Your task to perform on an android device: Open Chrome and go to the settings page Image 0: 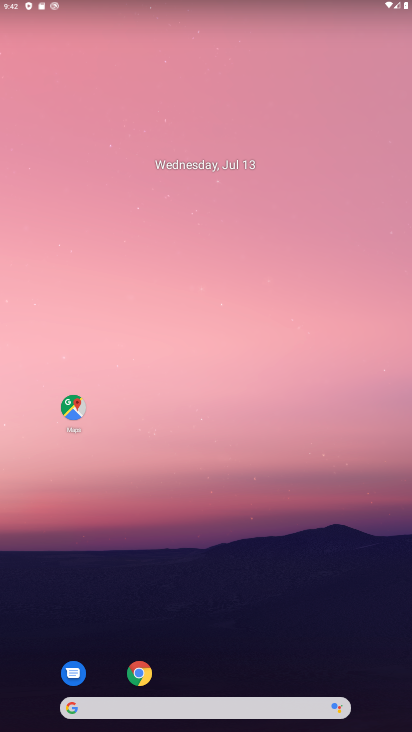
Step 0: drag from (206, 636) to (249, 417)
Your task to perform on an android device: Open Chrome and go to the settings page Image 1: 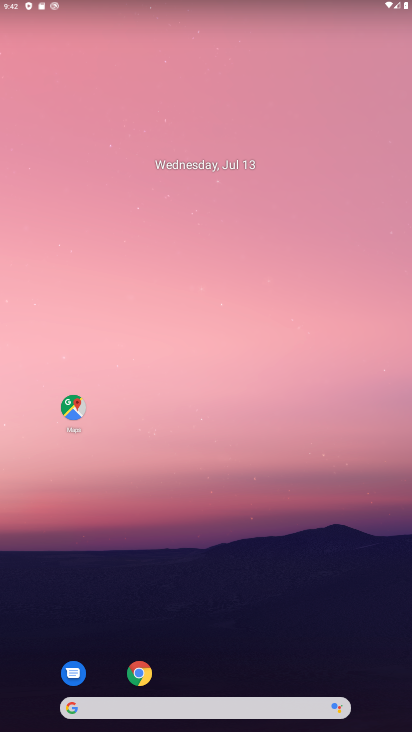
Step 1: drag from (210, 703) to (206, 315)
Your task to perform on an android device: Open Chrome and go to the settings page Image 2: 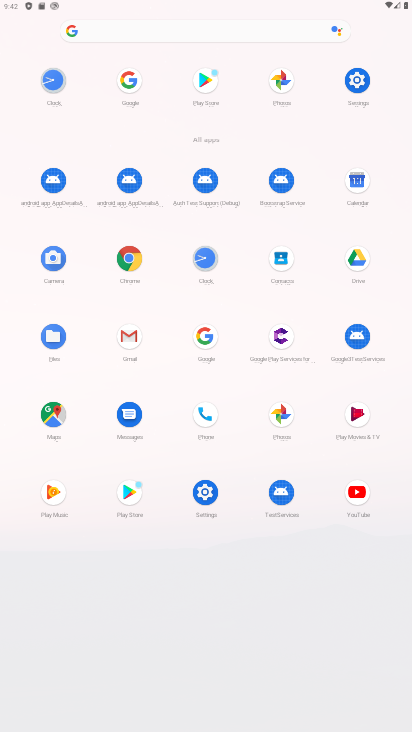
Step 2: click (125, 261)
Your task to perform on an android device: Open Chrome and go to the settings page Image 3: 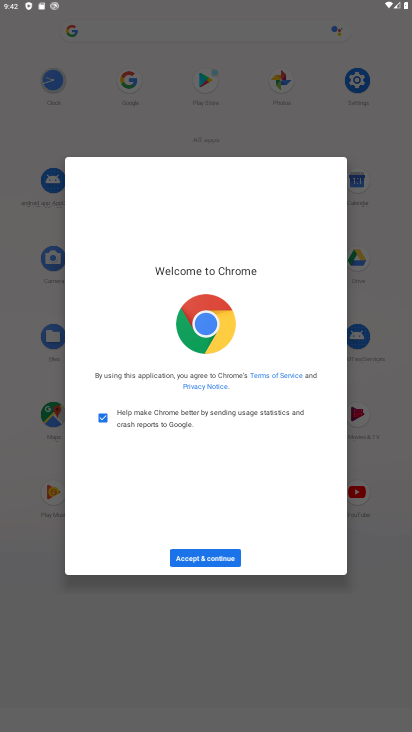
Step 3: click (215, 559)
Your task to perform on an android device: Open Chrome and go to the settings page Image 4: 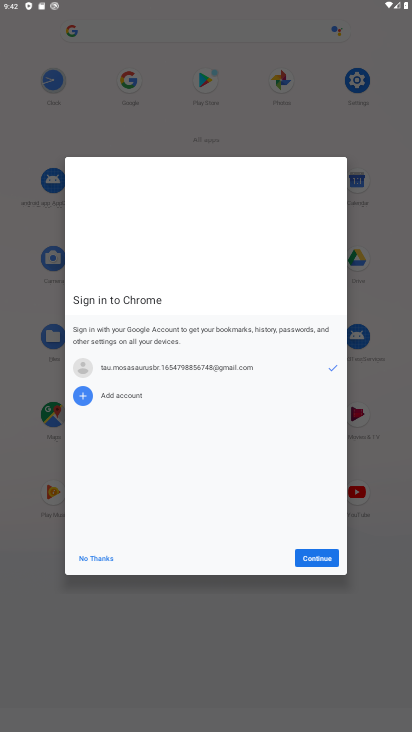
Step 4: click (309, 563)
Your task to perform on an android device: Open Chrome and go to the settings page Image 5: 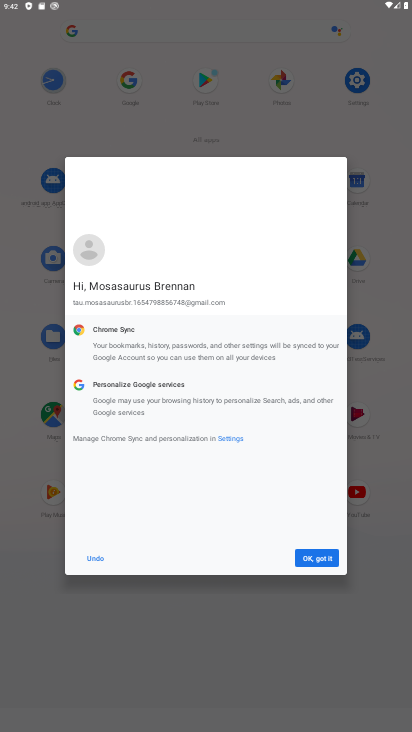
Step 5: click (309, 563)
Your task to perform on an android device: Open Chrome and go to the settings page Image 6: 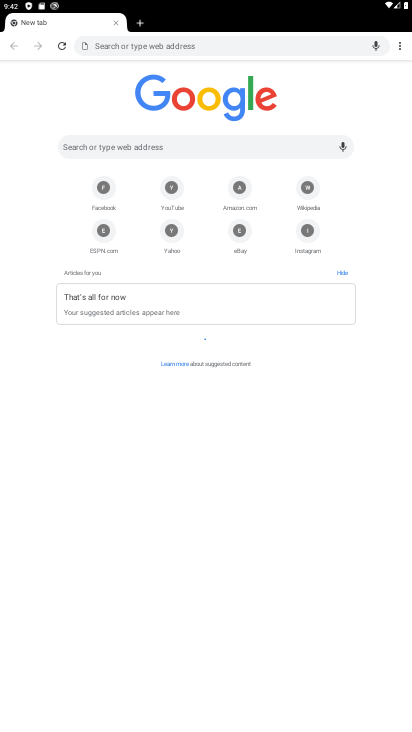
Step 6: click (401, 41)
Your task to perform on an android device: Open Chrome and go to the settings page Image 7: 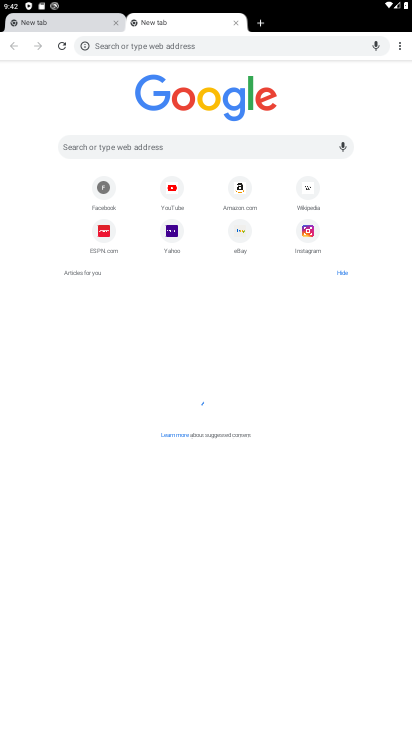
Step 7: click (402, 45)
Your task to perform on an android device: Open Chrome and go to the settings page Image 8: 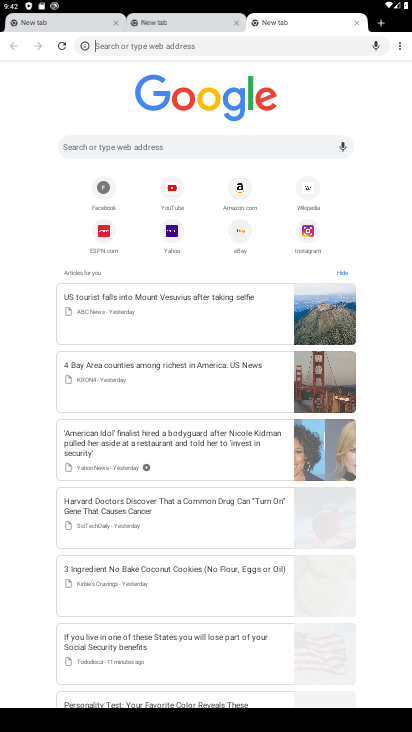
Step 8: click (395, 51)
Your task to perform on an android device: Open Chrome and go to the settings page Image 9: 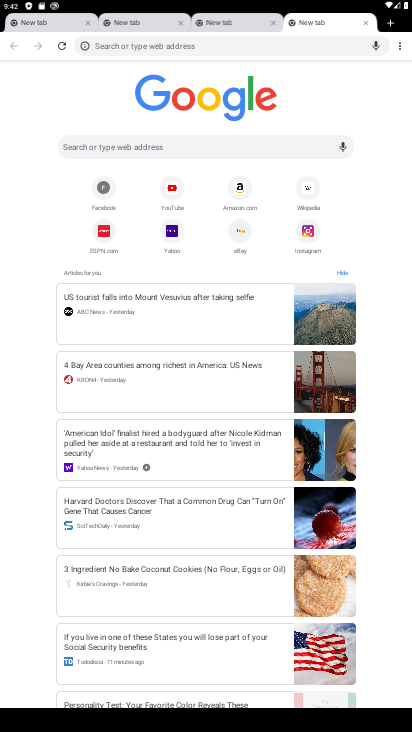
Step 9: click (397, 43)
Your task to perform on an android device: Open Chrome and go to the settings page Image 10: 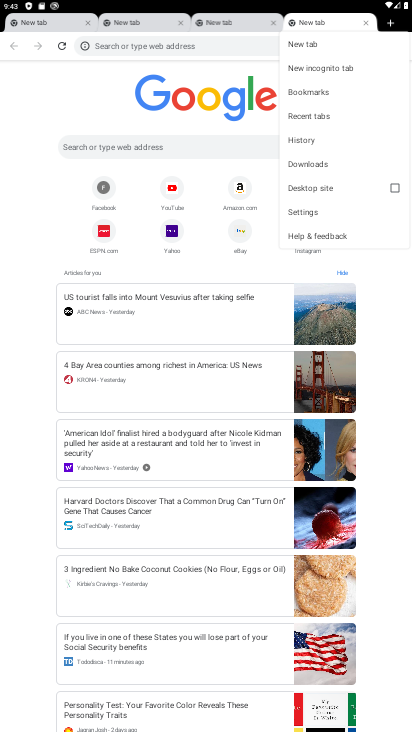
Step 10: click (293, 212)
Your task to perform on an android device: Open Chrome and go to the settings page Image 11: 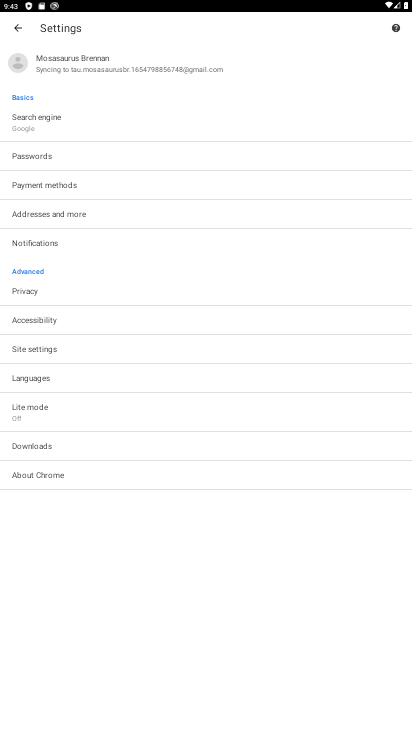
Step 11: task complete